Your task to perform on an android device: turn off notifications settings in the gmail app Image 0: 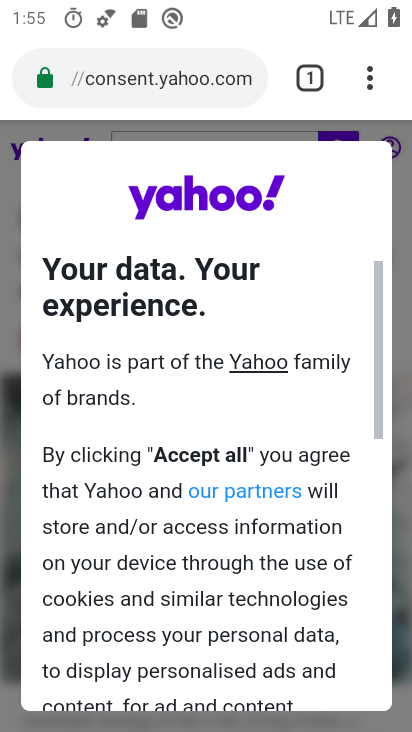
Step 0: press home button
Your task to perform on an android device: turn off notifications settings in the gmail app Image 1: 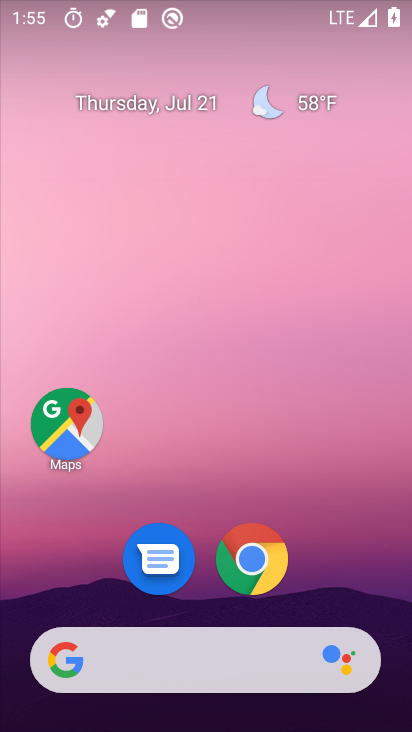
Step 1: drag from (364, 571) to (390, 94)
Your task to perform on an android device: turn off notifications settings in the gmail app Image 2: 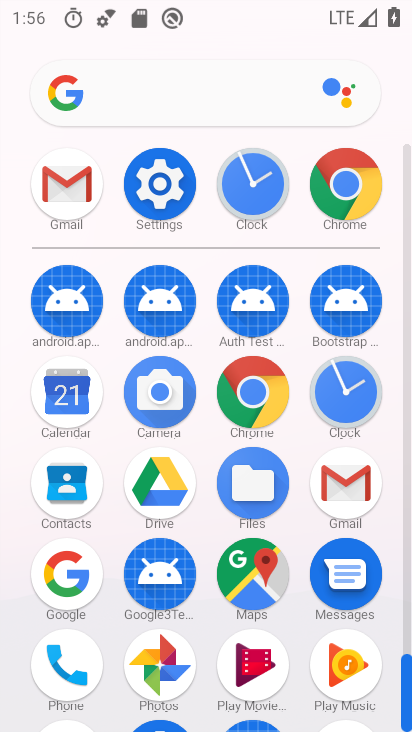
Step 2: click (351, 476)
Your task to perform on an android device: turn off notifications settings in the gmail app Image 3: 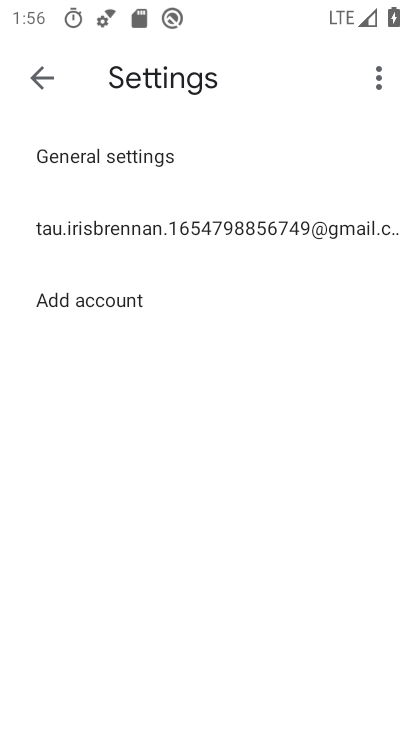
Step 3: click (184, 228)
Your task to perform on an android device: turn off notifications settings in the gmail app Image 4: 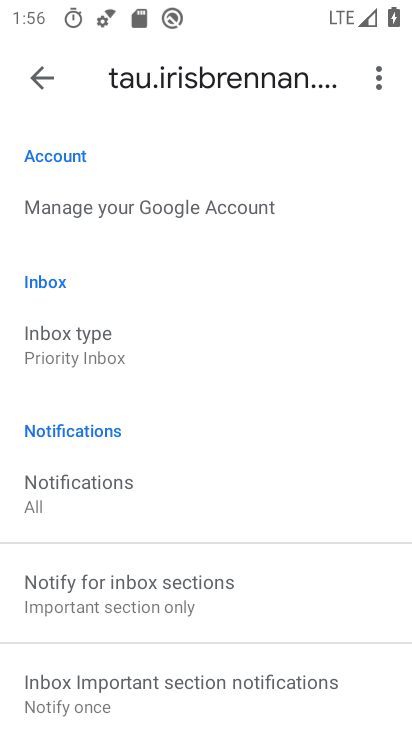
Step 4: drag from (295, 472) to (299, 360)
Your task to perform on an android device: turn off notifications settings in the gmail app Image 5: 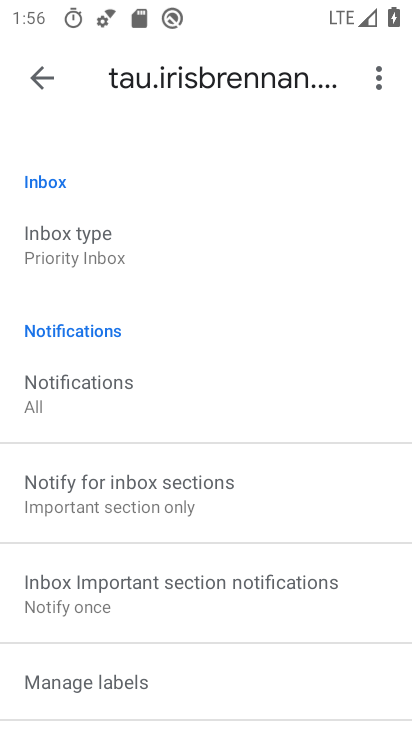
Step 5: drag from (306, 473) to (310, 347)
Your task to perform on an android device: turn off notifications settings in the gmail app Image 6: 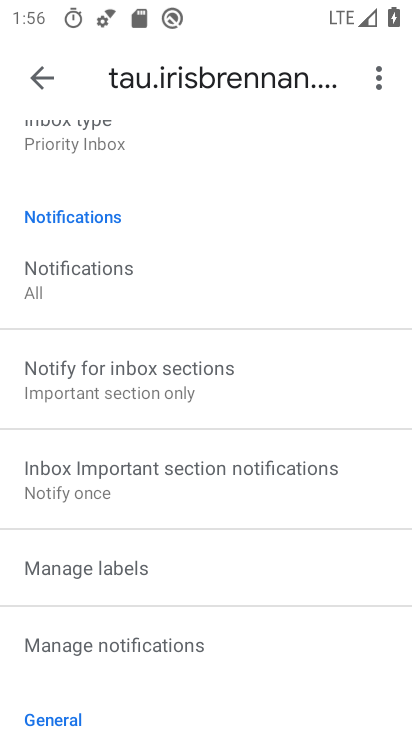
Step 6: drag from (332, 535) to (337, 392)
Your task to perform on an android device: turn off notifications settings in the gmail app Image 7: 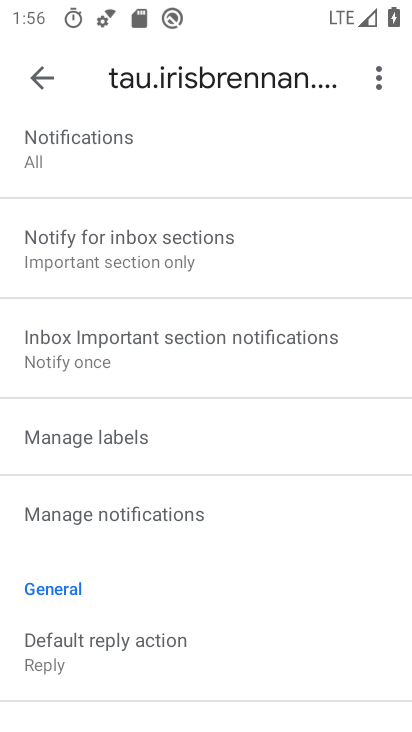
Step 7: drag from (338, 523) to (342, 312)
Your task to perform on an android device: turn off notifications settings in the gmail app Image 8: 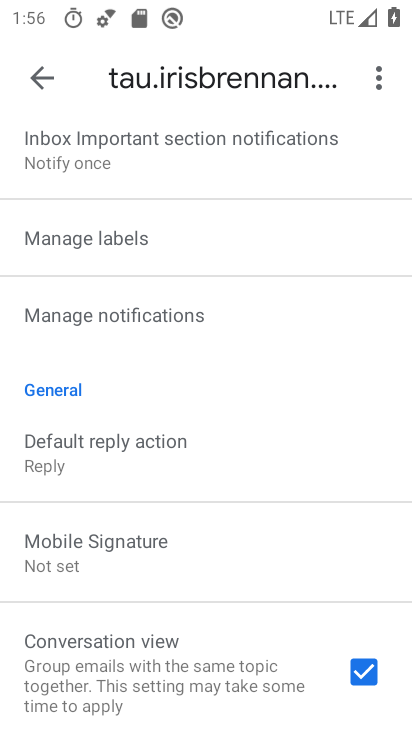
Step 8: click (337, 309)
Your task to perform on an android device: turn off notifications settings in the gmail app Image 9: 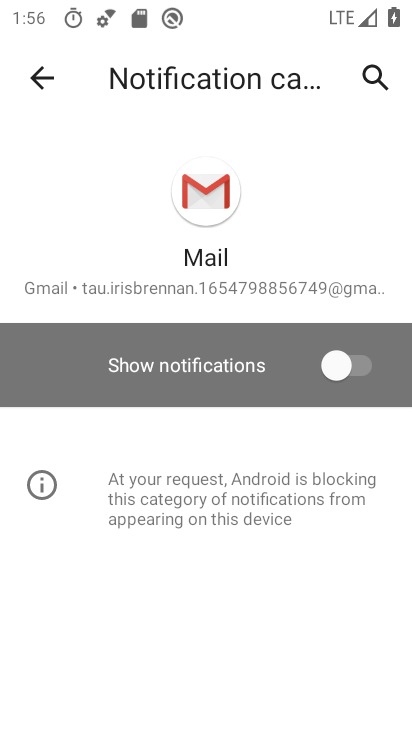
Step 9: task complete